Your task to perform on an android device: Turn off the flashlight Image 0: 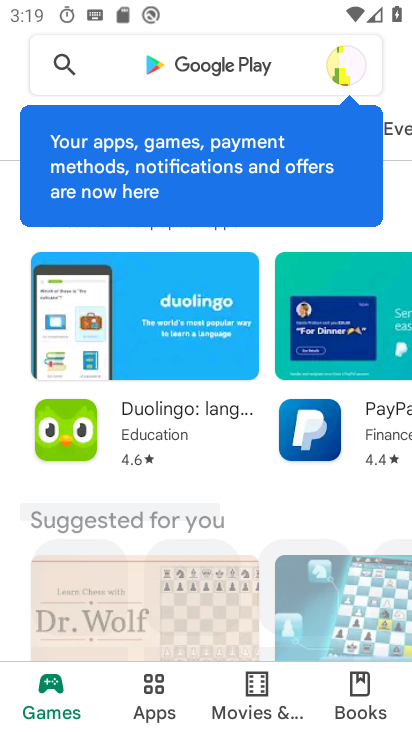
Step 0: press home button
Your task to perform on an android device: Turn off the flashlight Image 1: 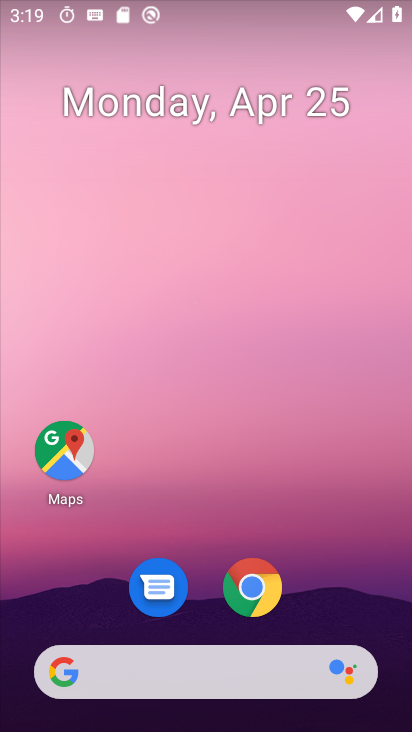
Step 1: task complete